Your task to perform on an android device: Empty the shopping cart on costco. Search for razer nari on costco, select the first entry, and add it to the cart. Image 0: 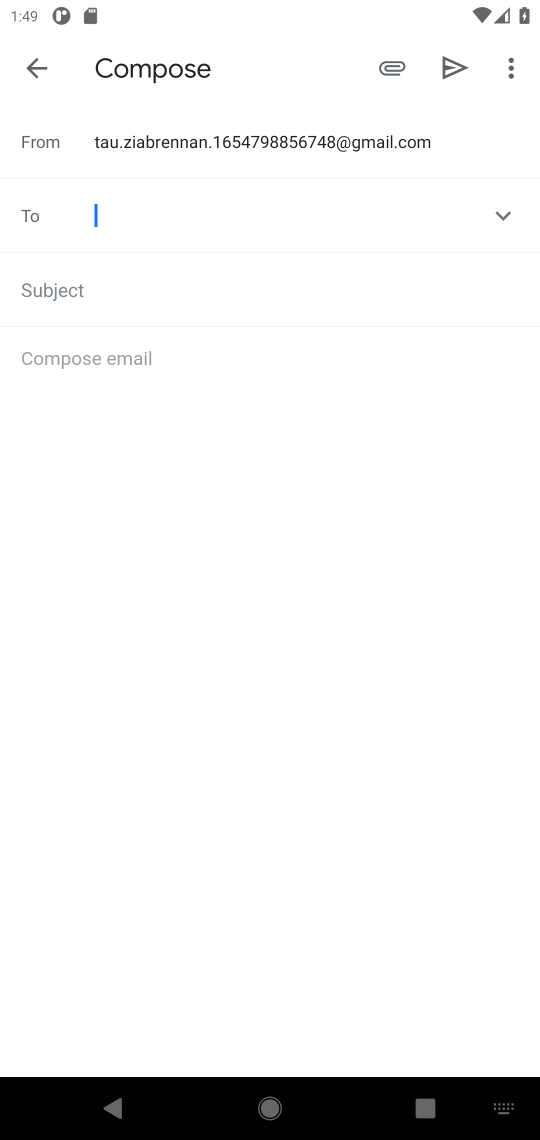
Step 0: press home button
Your task to perform on an android device: Empty the shopping cart on costco. Search for razer nari on costco, select the first entry, and add it to the cart. Image 1: 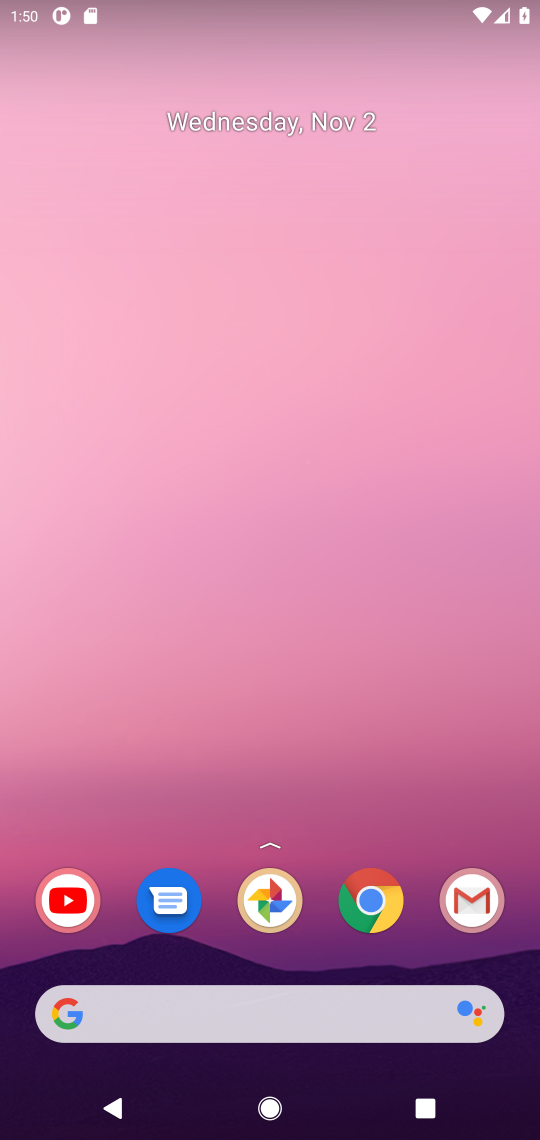
Step 1: click (385, 898)
Your task to perform on an android device: Empty the shopping cart on costco. Search for razer nari on costco, select the first entry, and add it to the cart. Image 2: 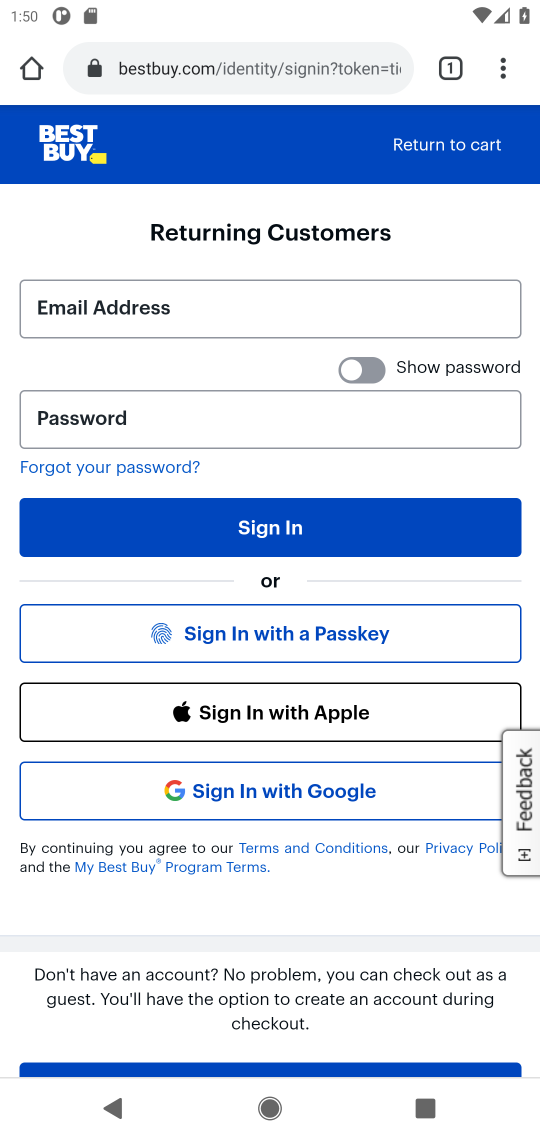
Step 2: click (154, 62)
Your task to perform on an android device: Empty the shopping cart on costco. Search for razer nari on costco, select the first entry, and add it to the cart. Image 3: 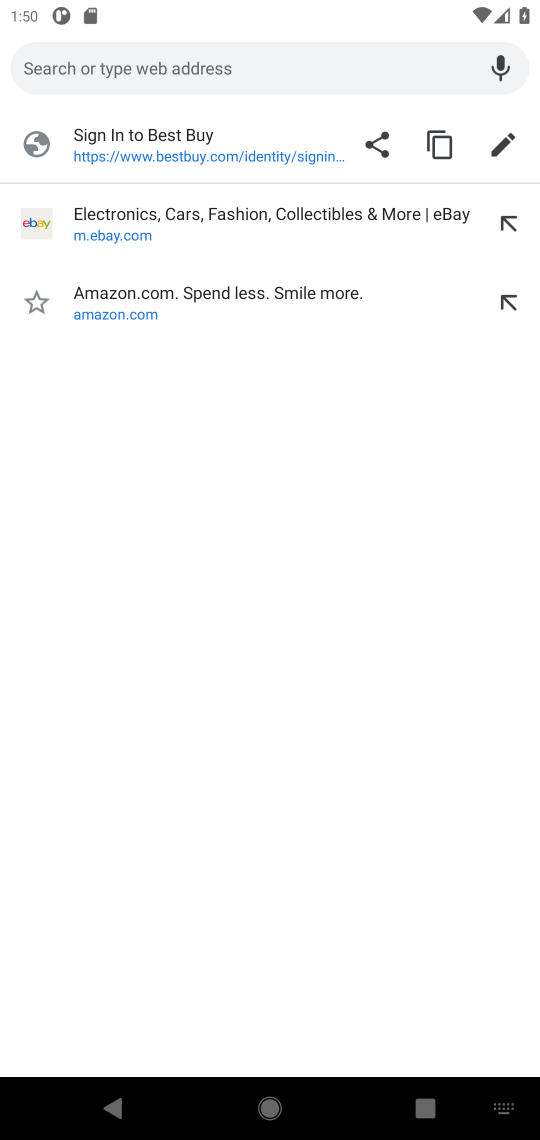
Step 3: type "costco"
Your task to perform on an android device: Empty the shopping cart on costco. Search for razer nari on costco, select the first entry, and add it to the cart. Image 4: 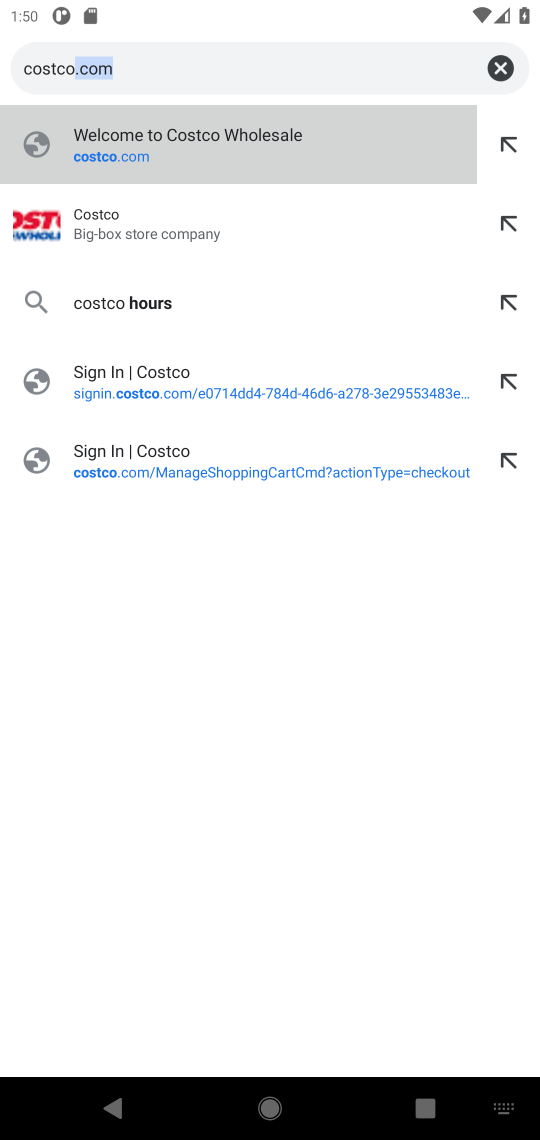
Step 4: click (96, 218)
Your task to perform on an android device: Empty the shopping cart on costco. Search for razer nari on costco, select the first entry, and add it to the cart. Image 5: 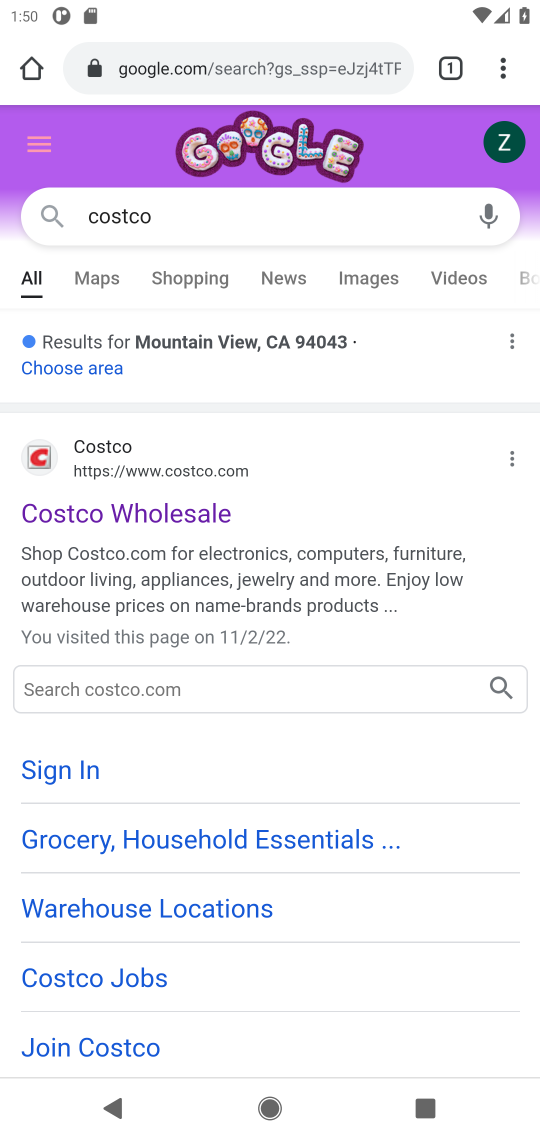
Step 5: click (125, 510)
Your task to perform on an android device: Empty the shopping cart on costco. Search for razer nari on costco, select the first entry, and add it to the cart. Image 6: 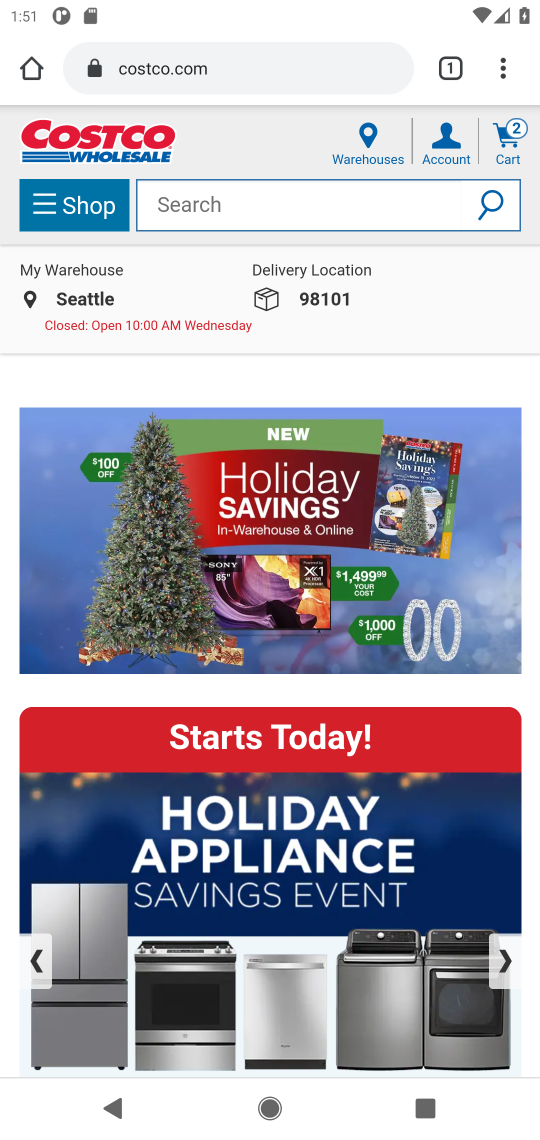
Step 6: click (185, 193)
Your task to perform on an android device: Empty the shopping cart on costco. Search for razer nari on costco, select the first entry, and add it to the cart. Image 7: 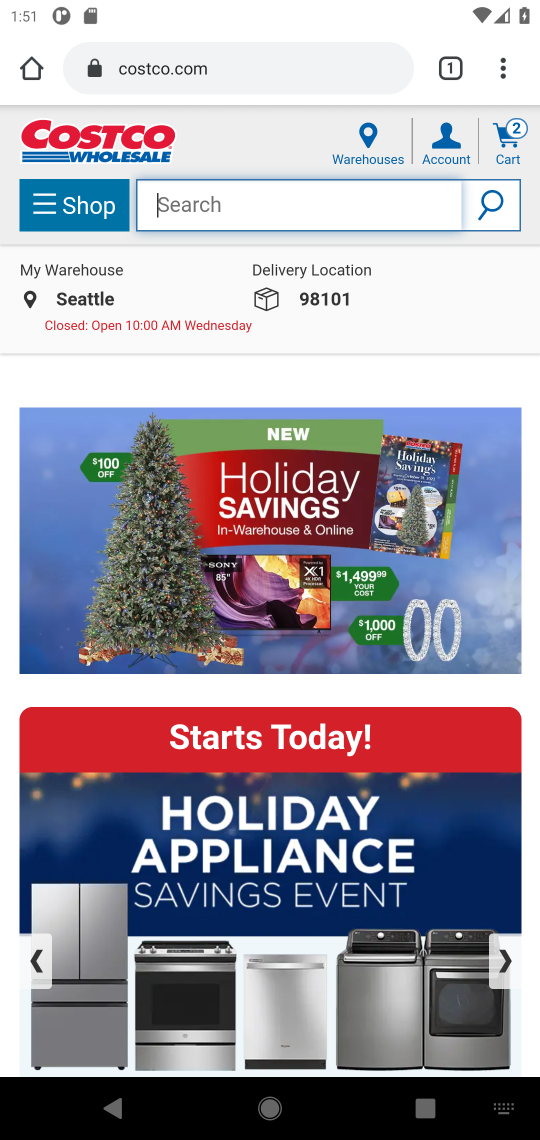
Step 7: type "razer nari"
Your task to perform on an android device: Empty the shopping cart on costco. Search for razer nari on costco, select the first entry, and add it to the cart. Image 8: 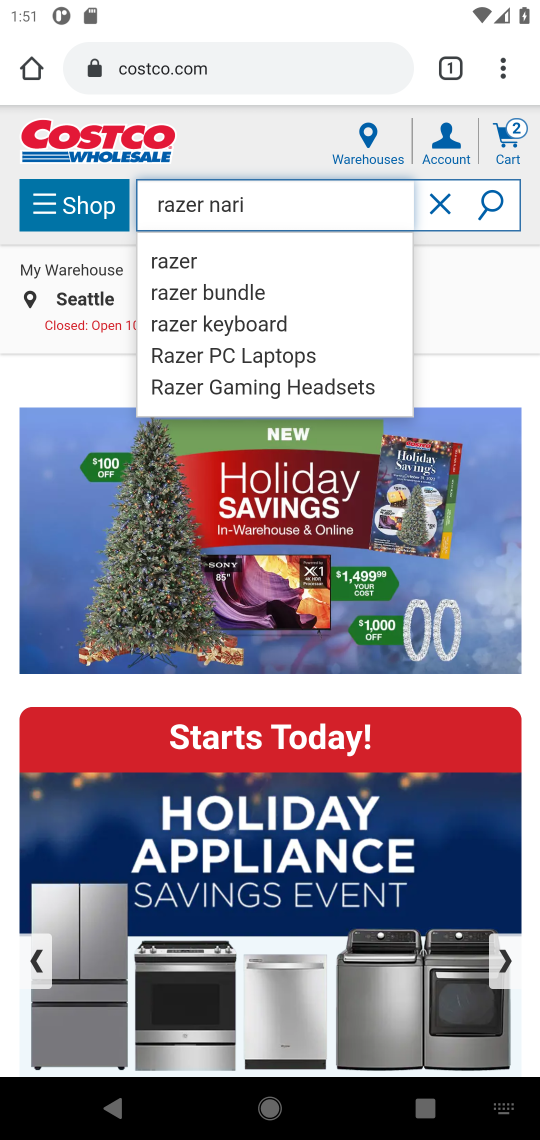
Step 8: click (163, 255)
Your task to perform on an android device: Empty the shopping cart on costco. Search for razer nari on costco, select the first entry, and add it to the cart. Image 9: 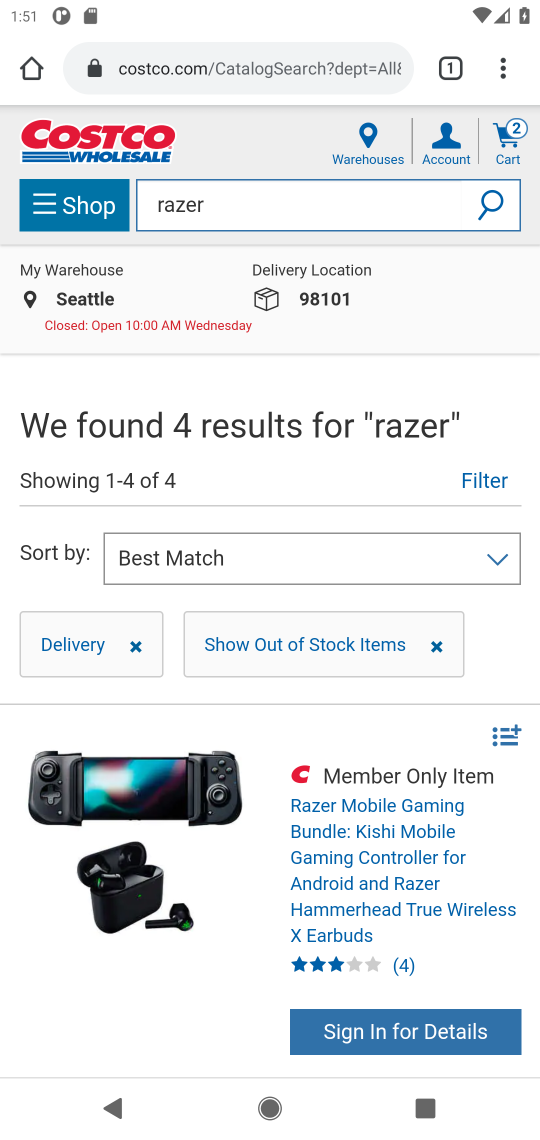
Step 9: drag from (142, 856) to (208, 359)
Your task to perform on an android device: Empty the shopping cart on costco. Search for razer nari on costco, select the first entry, and add it to the cart. Image 10: 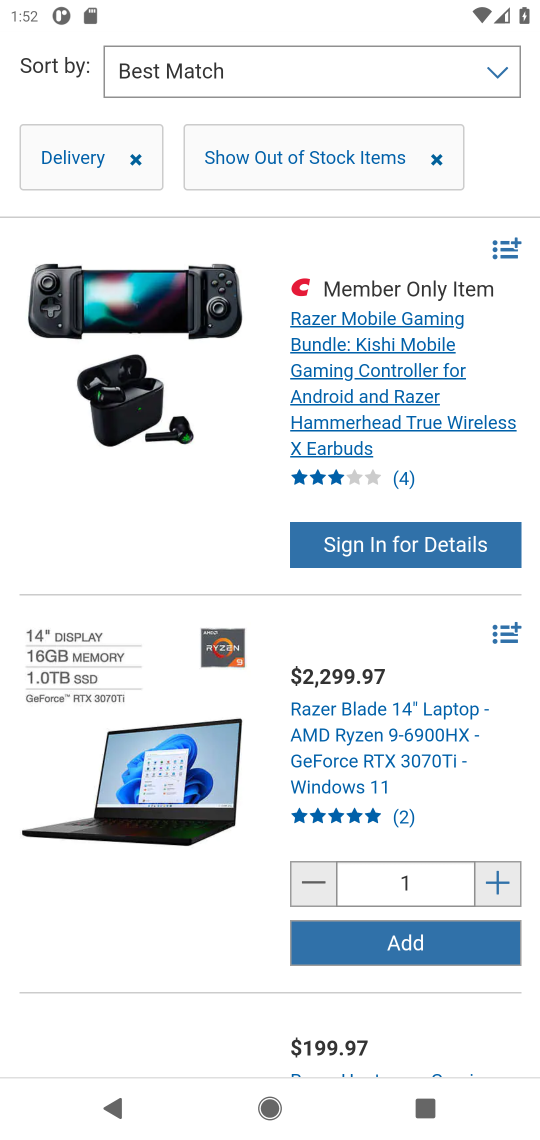
Step 10: click (425, 938)
Your task to perform on an android device: Empty the shopping cart on costco. Search for razer nari on costco, select the first entry, and add it to the cart. Image 11: 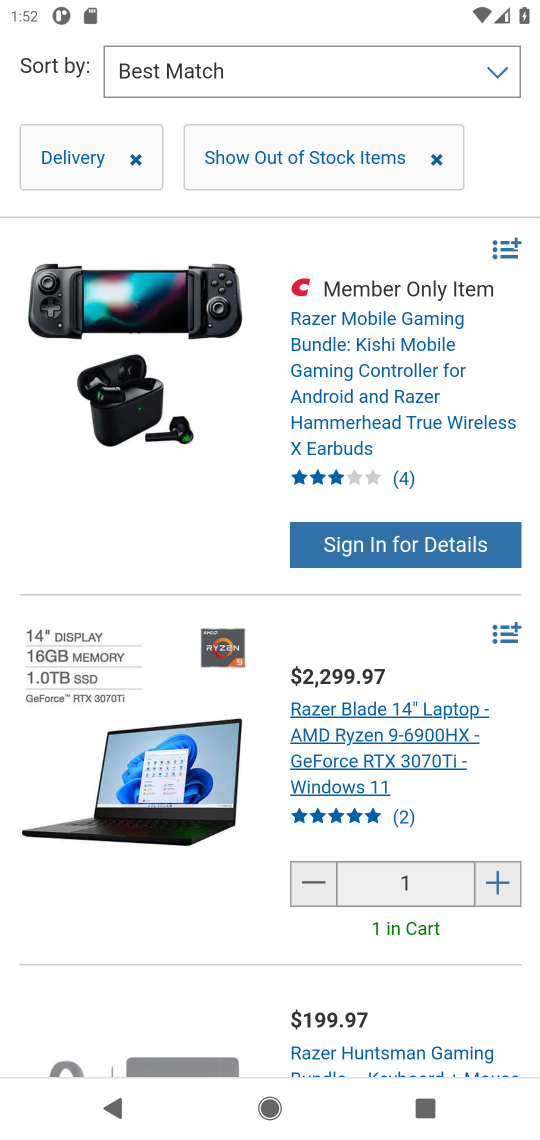
Step 11: drag from (128, 792) to (243, 253)
Your task to perform on an android device: Empty the shopping cart on costco. Search for razer nari on costco, select the first entry, and add it to the cart. Image 12: 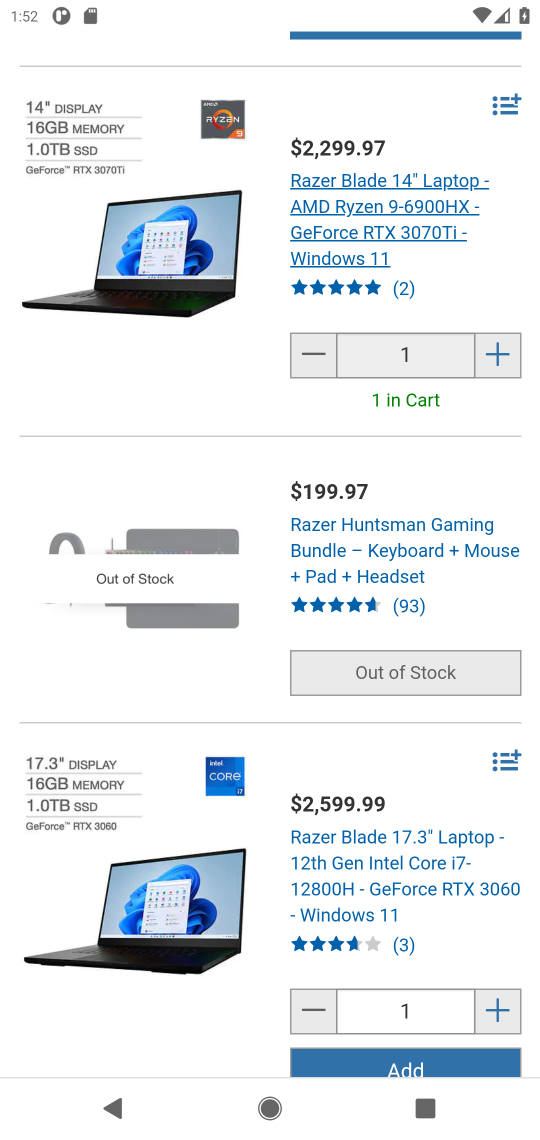
Step 12: click (349, 837)
Your task to perform on an android device: Empty the shopping cart on costco. Search for razer nari on costco, select the first entry, and add it to the cart. Image 13: 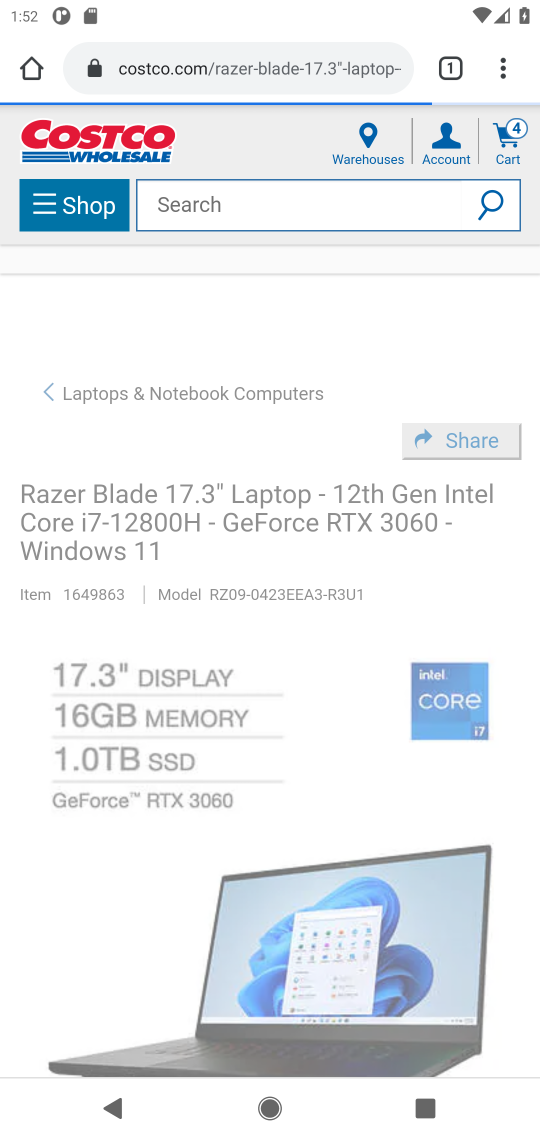
Step 13: drag from (64, 847) to (181, 1)
Your task to perform on an android device: Empty the shopping cart on costco. Search for razer nari on costco, select the first entry, and add it to the cart. Image 14: 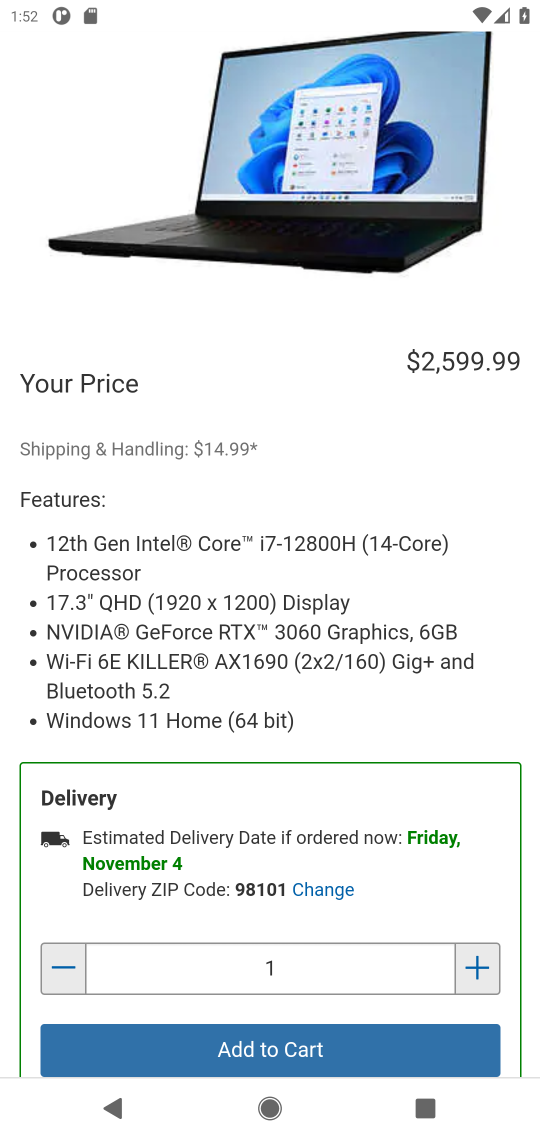
Step 14: click (270, 1049)
Your task to perform on an android device: Empty the shopping cart on costco. Search for razer nari on costco, select the first entry, and add it to the cart. Image 15: 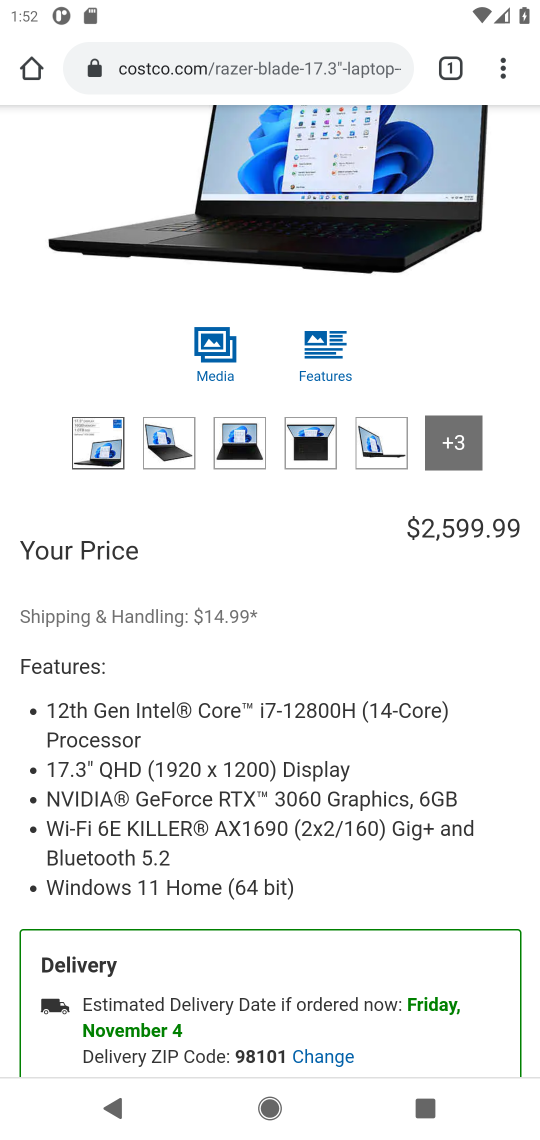
Step 15: drag from (134, 743) to (232, 2)
Your task to perform on an android device: Empty the shopping cart on costco. Search for razer nari on costco, select the first entry, and add it to the cart. Image 16: 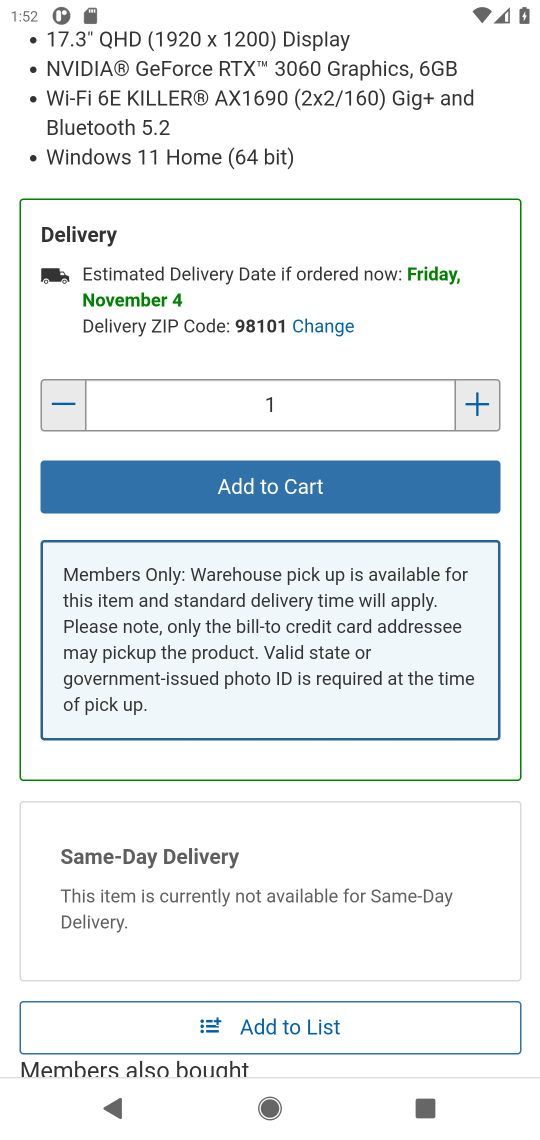
Step 16: click (332, 488)
Your task to perform on an android device: Empty the shopping cart on costco. Search for razer nari on costco, select the first entry, and add it to the cart. Image 17: 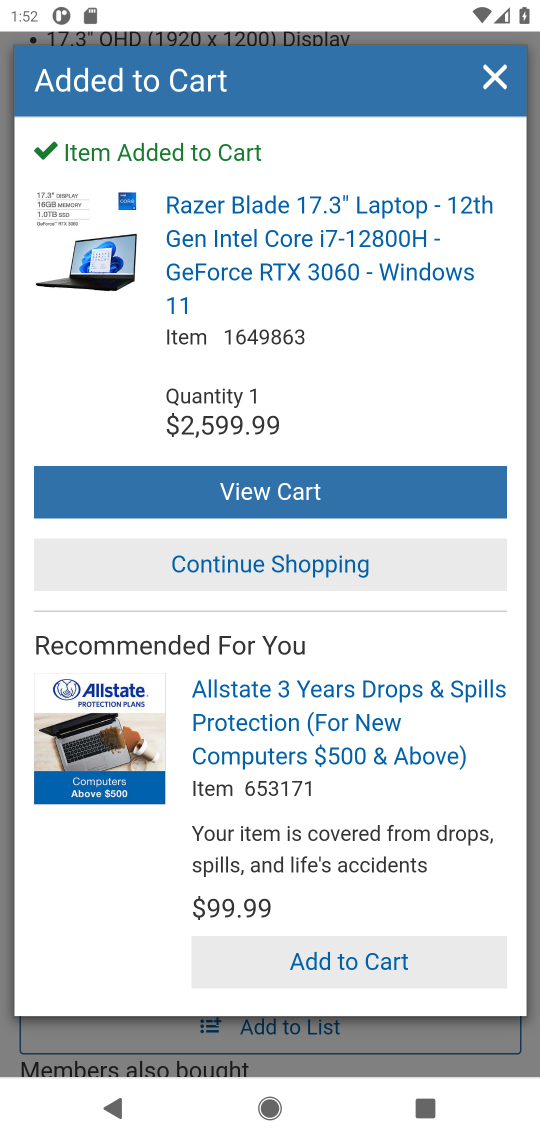
Step 17: click (258, 493)
Your task to perform on an android device: Empty the shopping cart on costco. Search for razer nari on costco, select the first entry, and add it to the cart. Image 18: 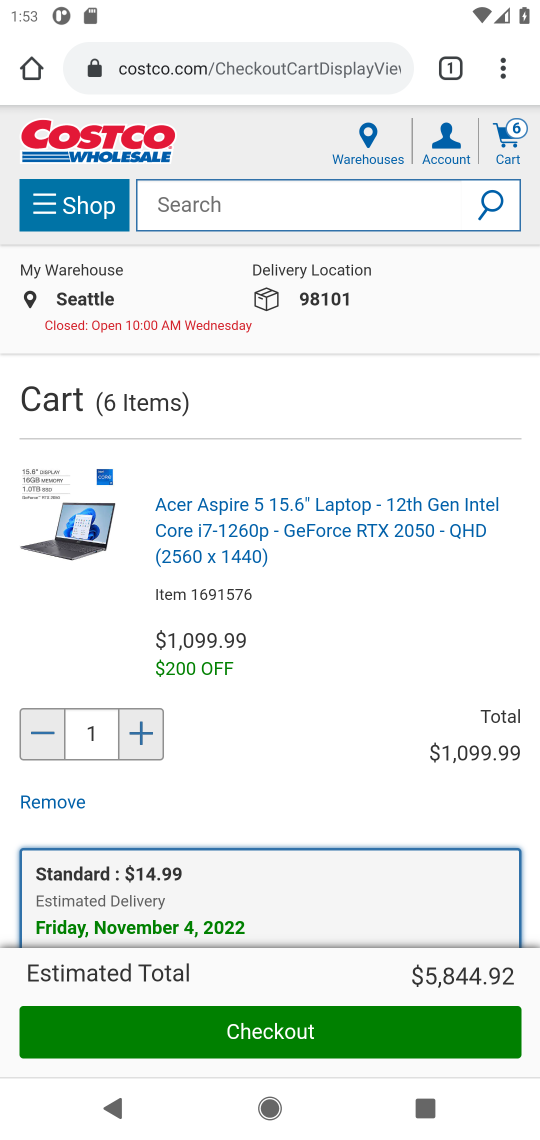
Step 18: click (299, 1037)
Your task to perform on an android device: Empty the shopping cart on costco. Search for razer nari on costco, select the first entry, and add it to the cart. Image 19: 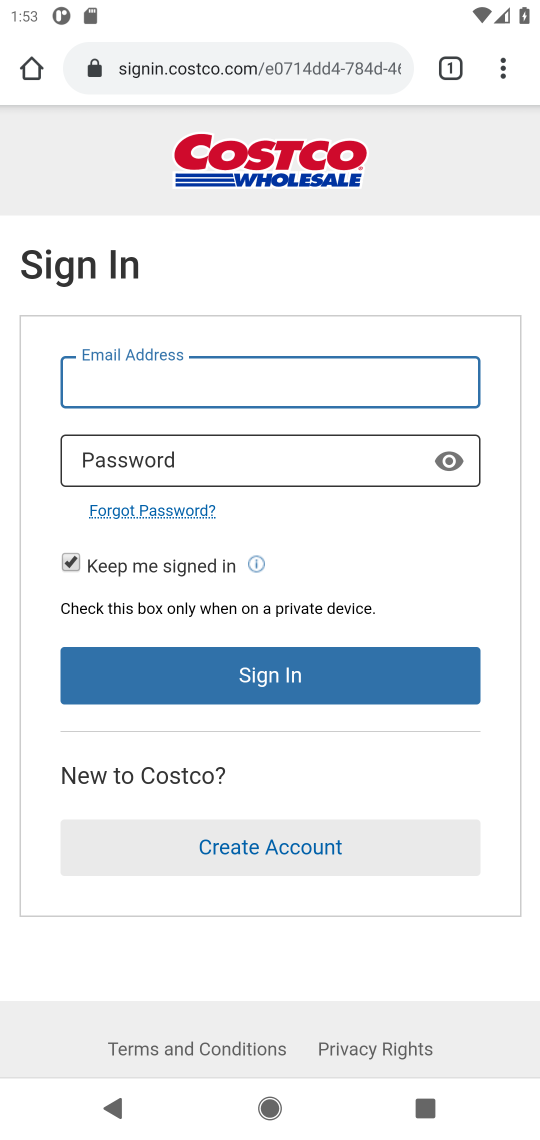
Step 19: click (145, 72)
Your task to perform on an android device: Empty the shopping cart on costco. Search for razer nari on costco, select the first entry, and add it to the cart. Image 20: 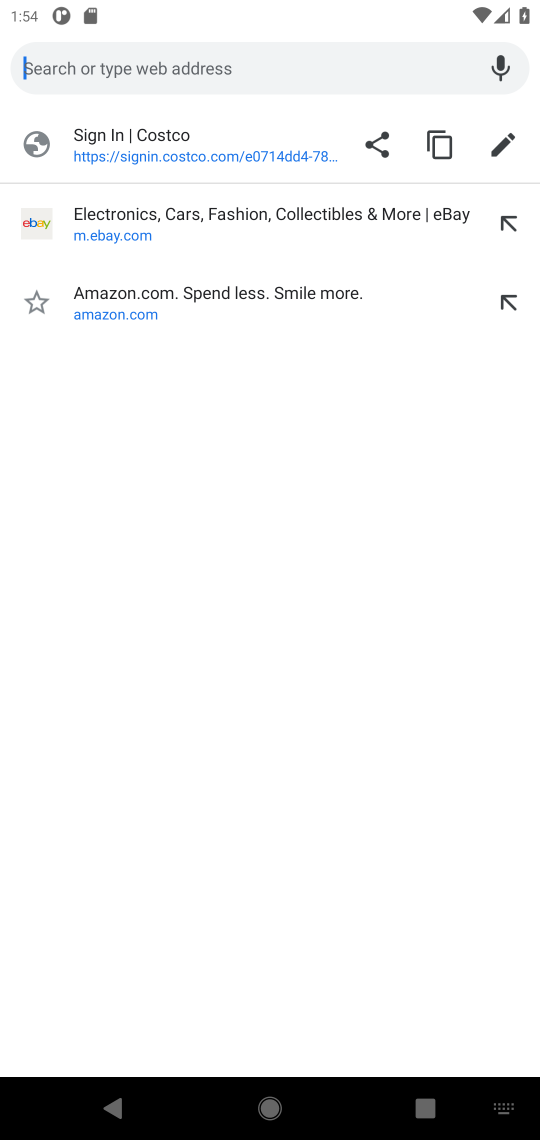
Step 20: type "costco"
Your task to perform on an android device: Empty the shopping cart on costco. Search for razer nari on costco, select the first entry, and add it to the cart. Image 21: 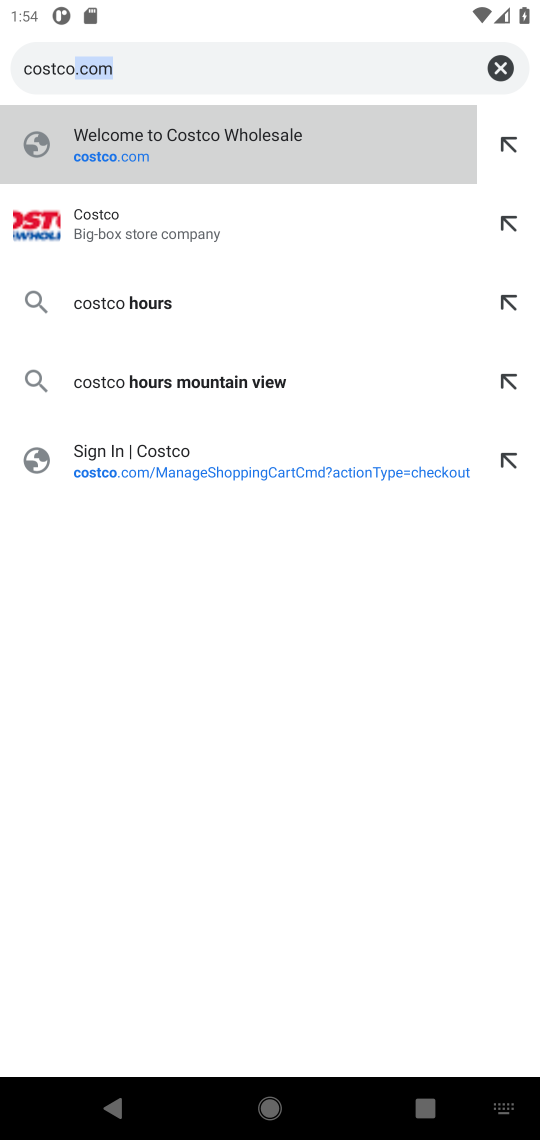
Step 21: click (64, 223)
Your task to perform on an android device: Empty the shopping cart on costco. Search for razer nari on costco, select the first entry, and add it to the cart. Image 22: 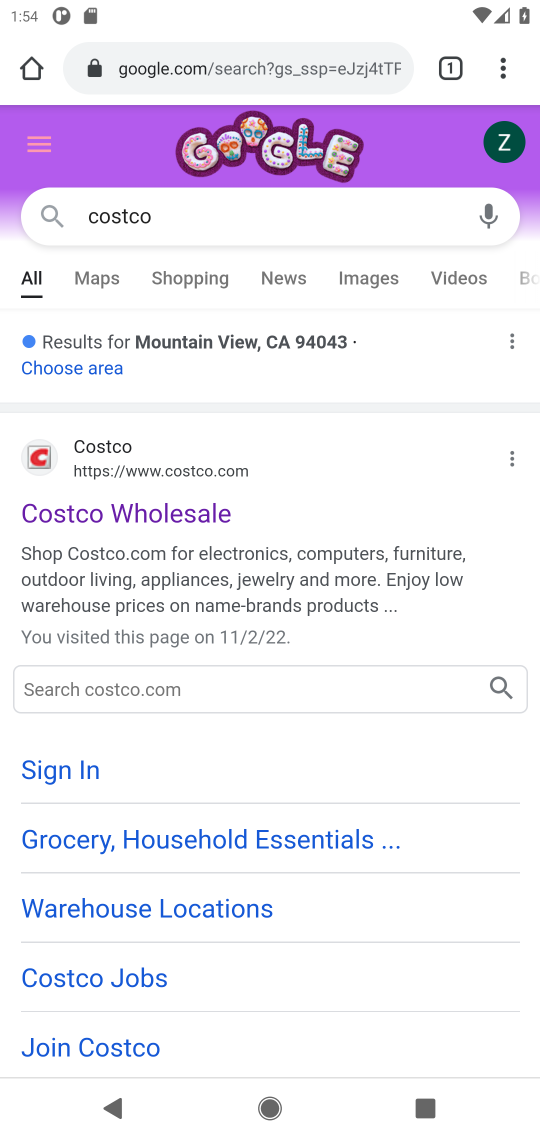
Step 22: click (88, 513)
Your task to perform on an android device: Empty the shopping cart on costco. Search for razer nari on costco, select the first entry, and add it to the cart. Image 23: 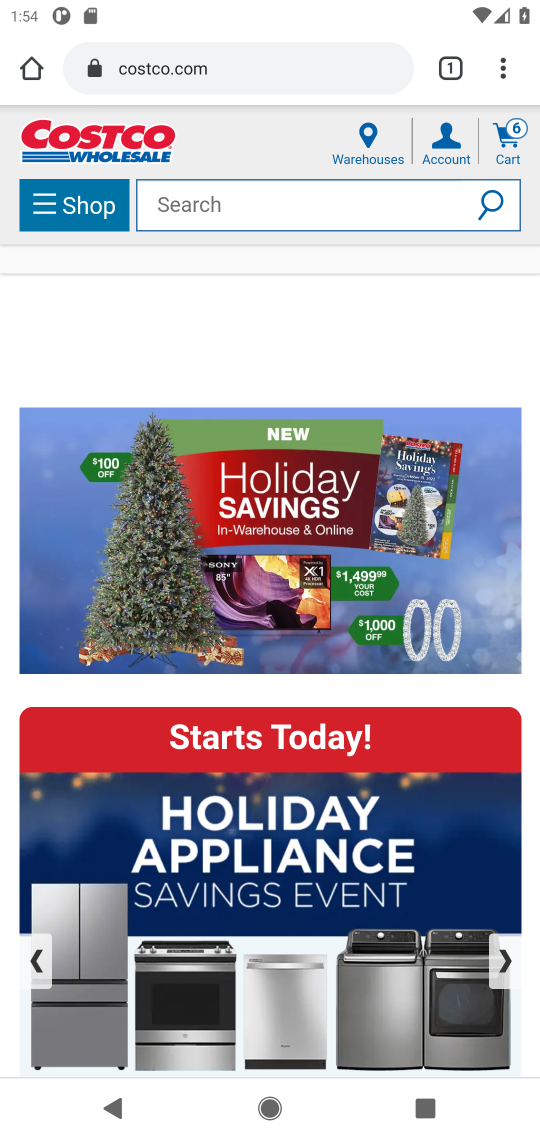
Step 23: click (174, 193)
Your task to perform on an android device: Empty the shopping cart on costco. Search for razer nari on costco, select the first entry, and add it to the cart. Image 24: 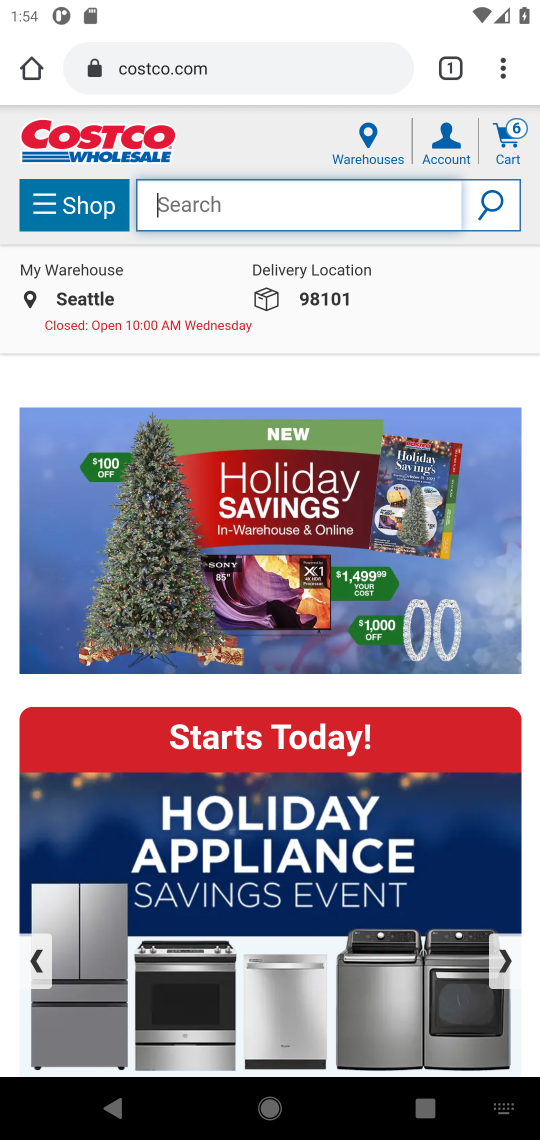
Step 24: type "razer nari"
Your task to perform on an android device: Empty the shopping cart on costco. Search for razer nari on costco, select the first entry, and add it to the cart. Image 25: 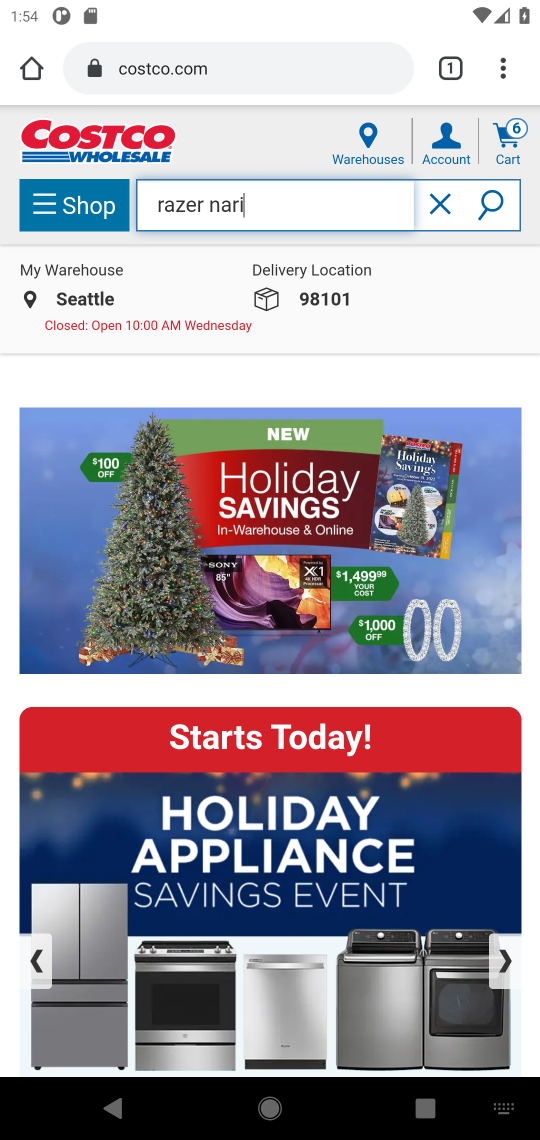
Step 25: type ""
Your task to perform on an android device: Empty the shopping cart on costco. Search for razer nari on costco, select the first entry, and add it to the cart. Image 26: 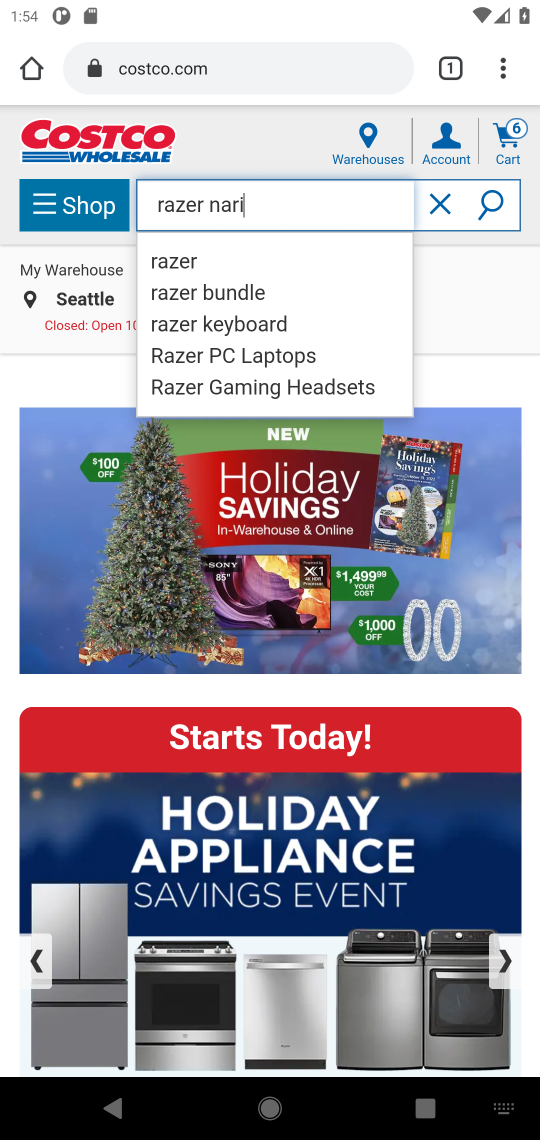
Step 26: click (151, 252)
Your task to perform on an android device: Empty the shopping cart on costco. Search for razer nari on costco, select the first entry, and add it to the cart. Image 27: 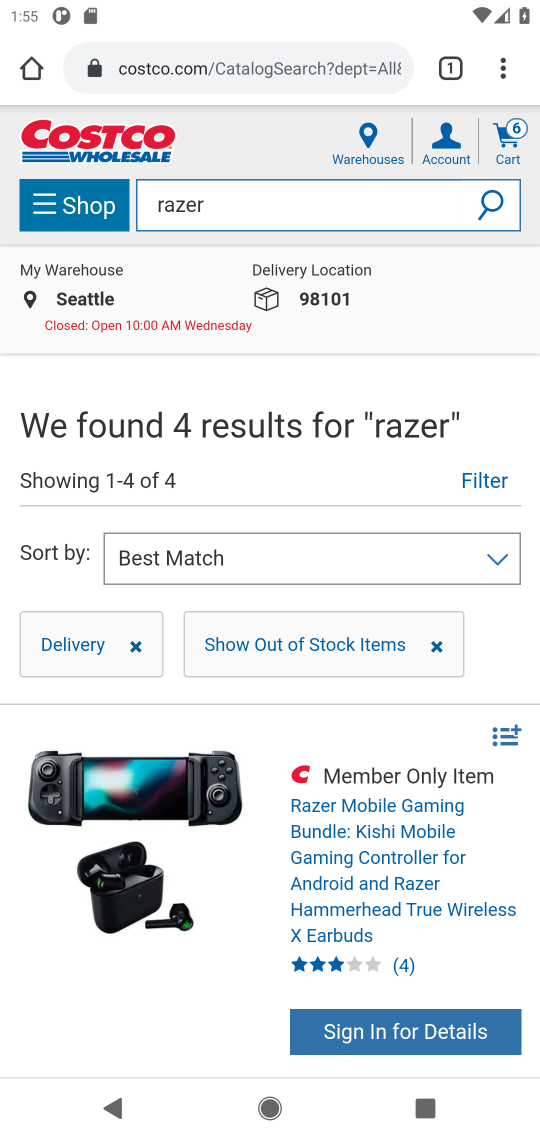
Step 27: drag from (244, 883) to (468, 326)
Your task to perform on an android device: Empty the shopping cart on costco. Search for razer nari on costco, select the first entry, and add it to the cart. Image 28: 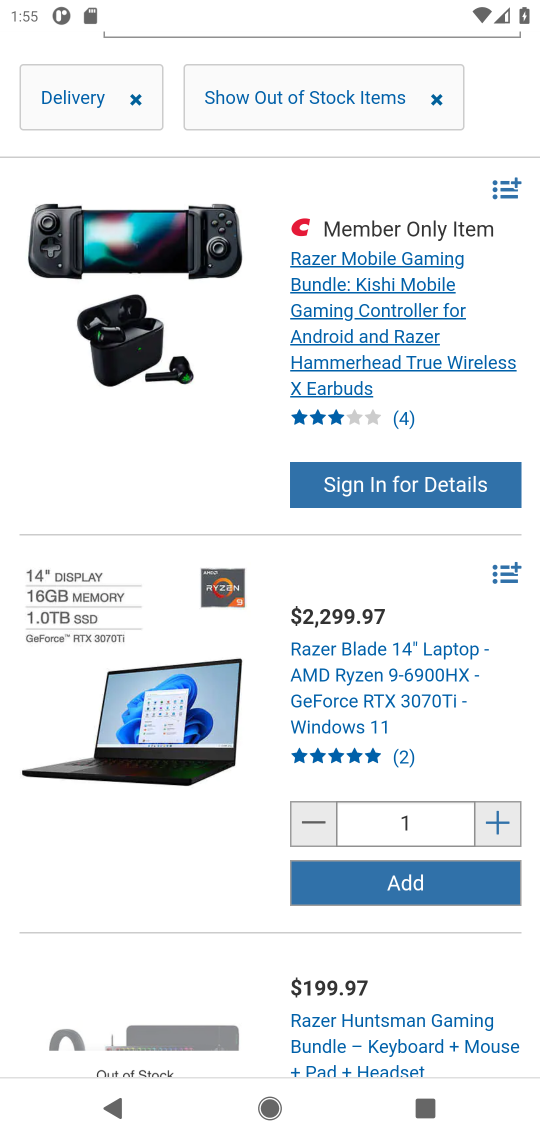
Step 28: drag from (134, 762) to (259, 39)
Your task to perform on an android device: Empty the shopping cart on costco. Search for razer nari on costco, select the first entry, and add it to the cart. Image 29: 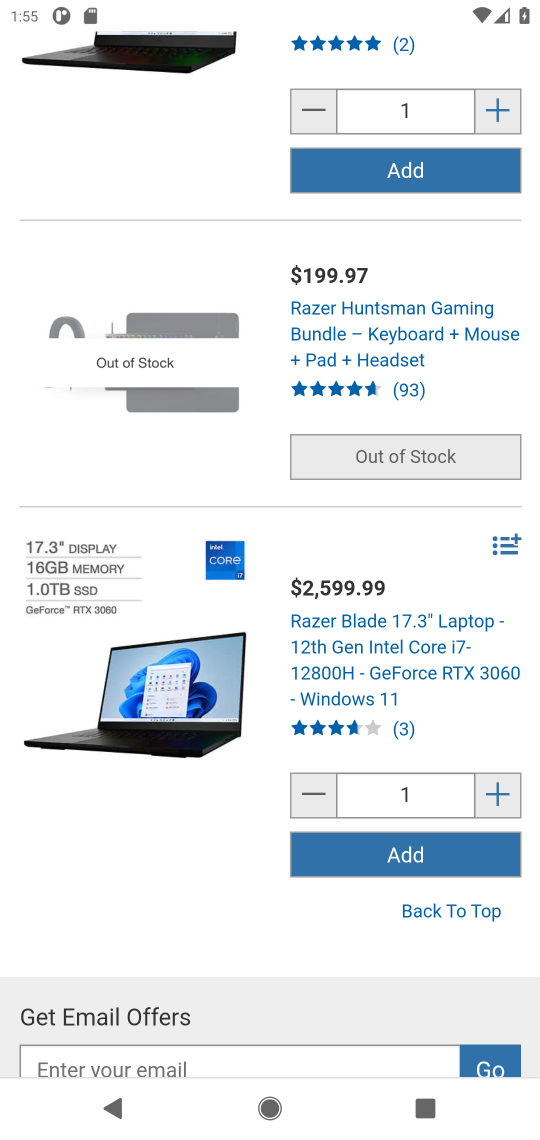
Step 29: click (342, 626)
Your task to perform on an android device: Empty the shopping cart on costco. Search for razer nari on costco, select the first entry, and add it to the cart. Image 30: 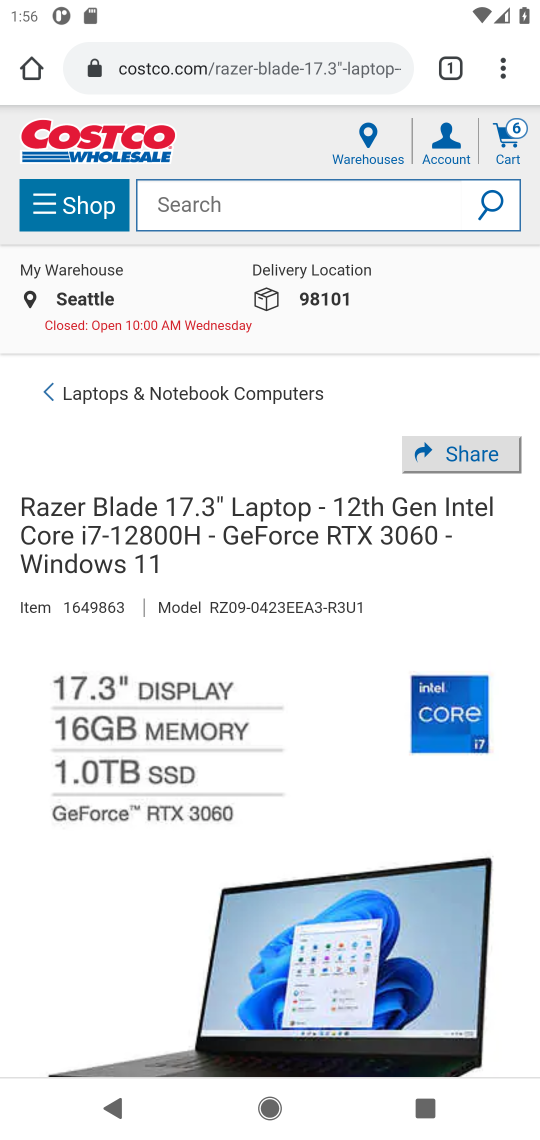
Step 30: drag from (117, 814) to (346, 110)
Your task to perform on an android device: Empty the shopping cart on costco. Search for razer nari on costco, select the first entry, and add it to the cart. Image 31: 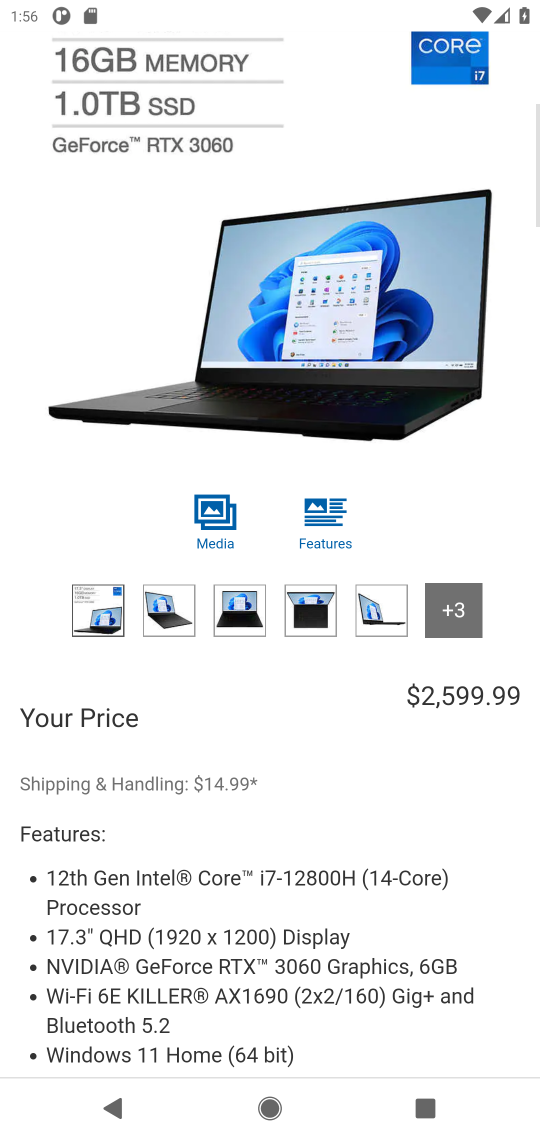
Step 31: drag from (121, 866) to (79, 177)
Your task to perform on an android device: Empty the shopping cart on costco. Search for razer nari on costco, select the first entry, and add it to the cart. Image 32: 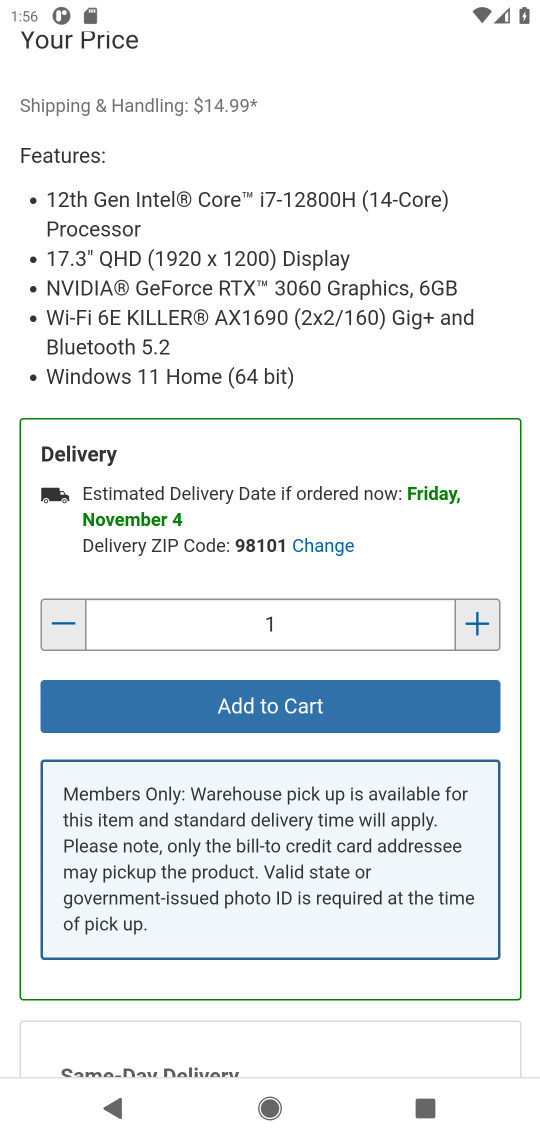
Step 32: click (306, 719)
Your task to perform on an android device: Empty the shopping cart on costco. Search for razer nari on costco, select the first entry, and add it to the cart. Image 33: 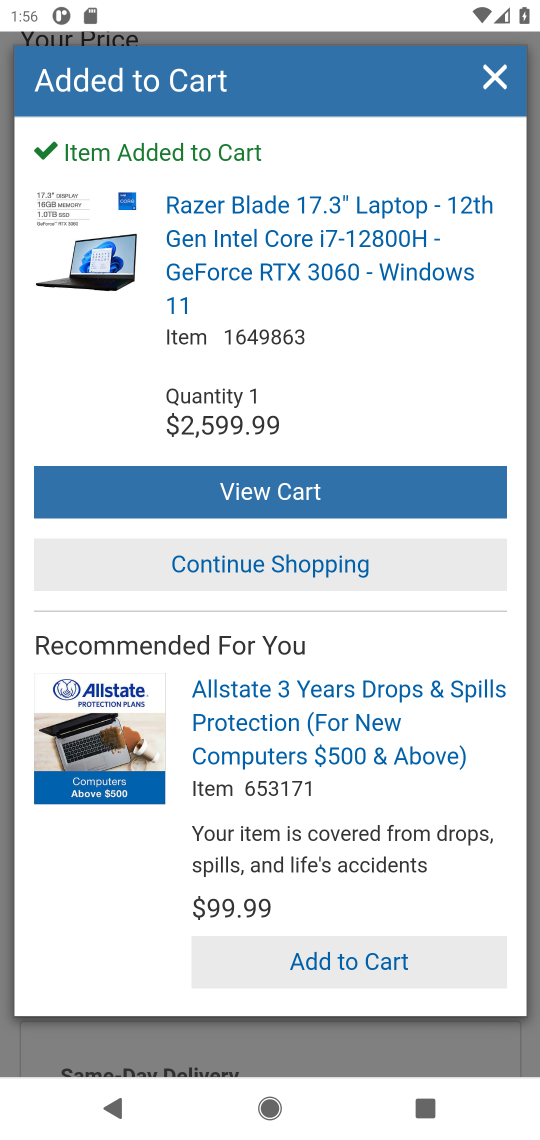
Step 33: click (268, 497)
Your task to perform on an android device: Empty the shopping cart on costco. Search for razer nari on costco, select the first entry, and add it to the cart. Image 34: 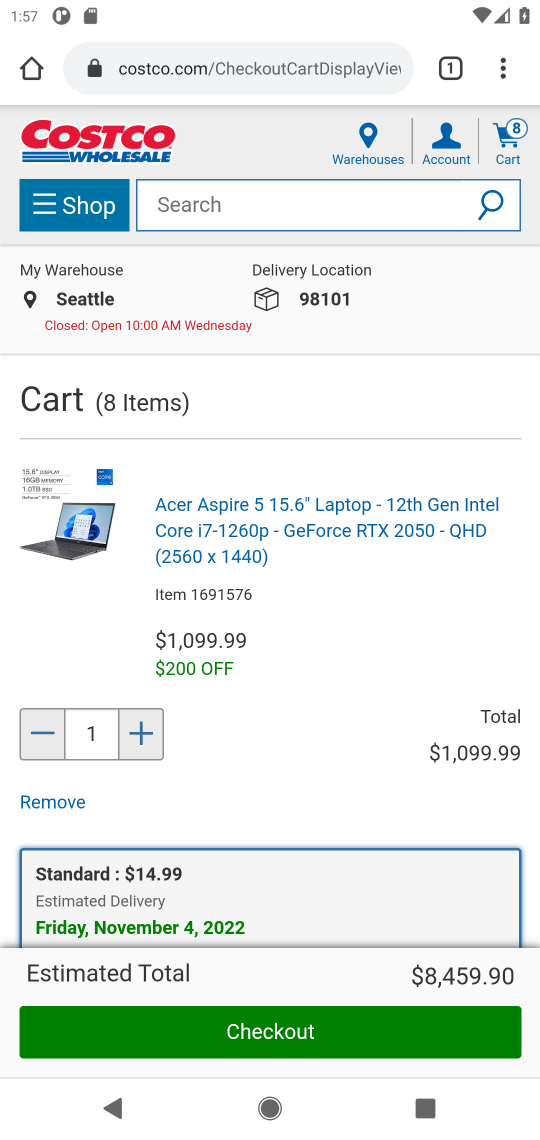
Step 34: click (259, 1030)
Your task to perform on an android device: Empty the shopping cart on costco. Search for razer nari on costco, select the first entry, and add it to the cart. Image 35: 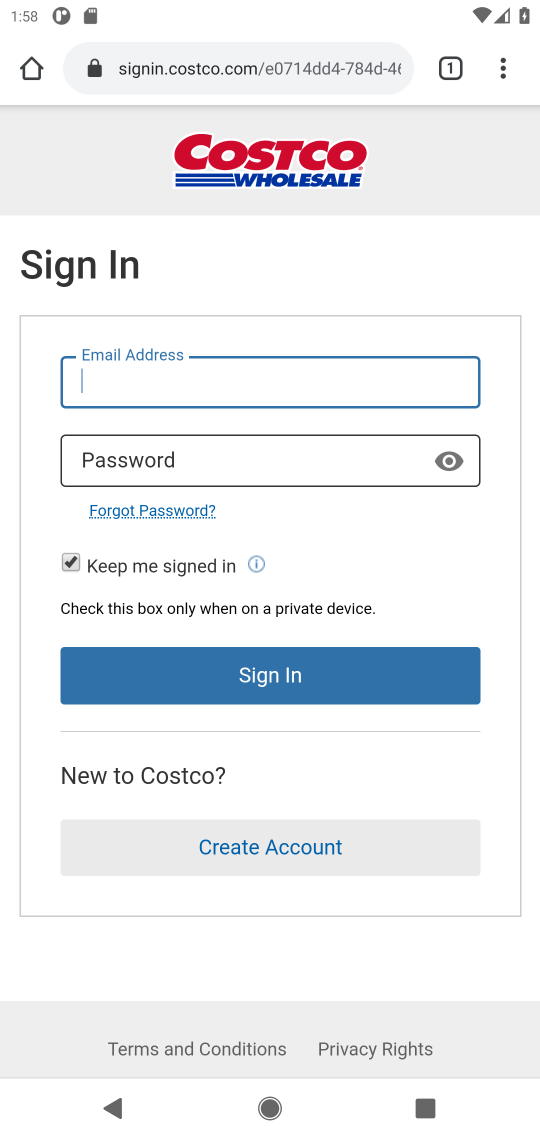
Step 35: task complete